Your task to perform on an android device: Open wifi settings Image 0: 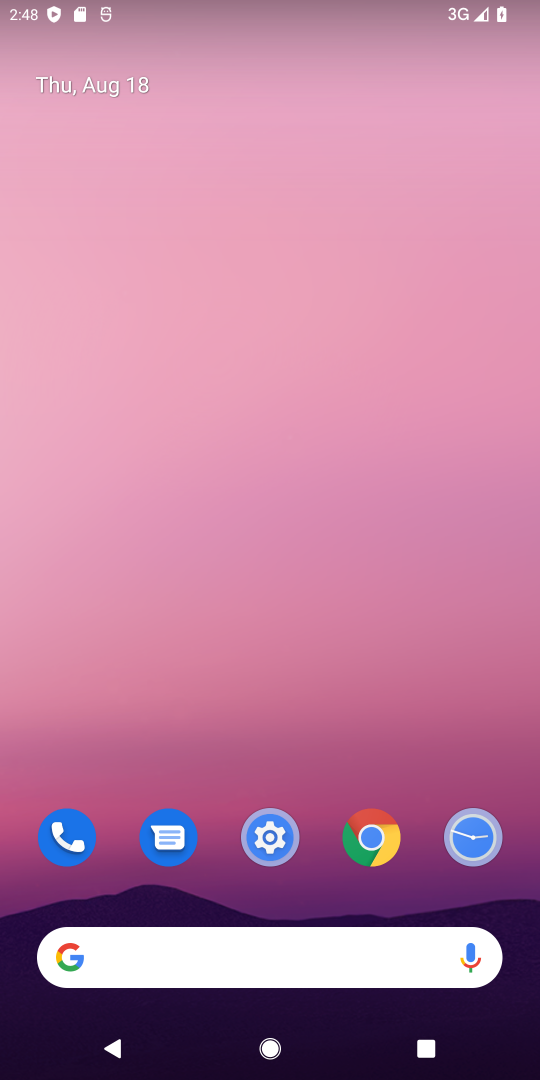
Step 0: drag from (322, 885) to (446, 88)
Your task to perform on an android device: Open wifi settings Image 1: 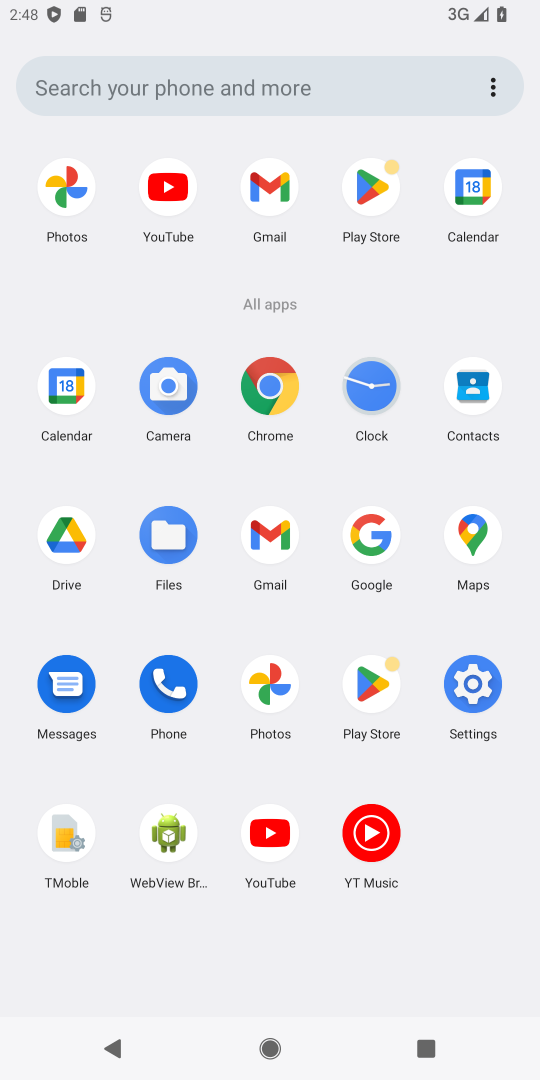
Step 1: click (465, 691)
Your task to perform on an android device: Open wifi settings Image 2: 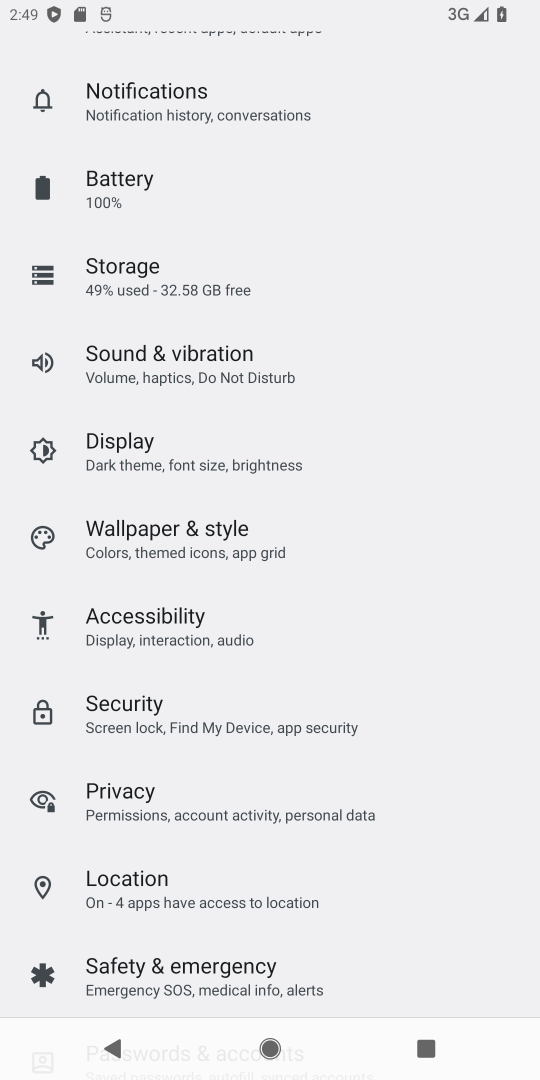
Step 2: drag from (233, 133) to (318, 908)
Your task to perform on an android device: Open wifi settings Image 3: 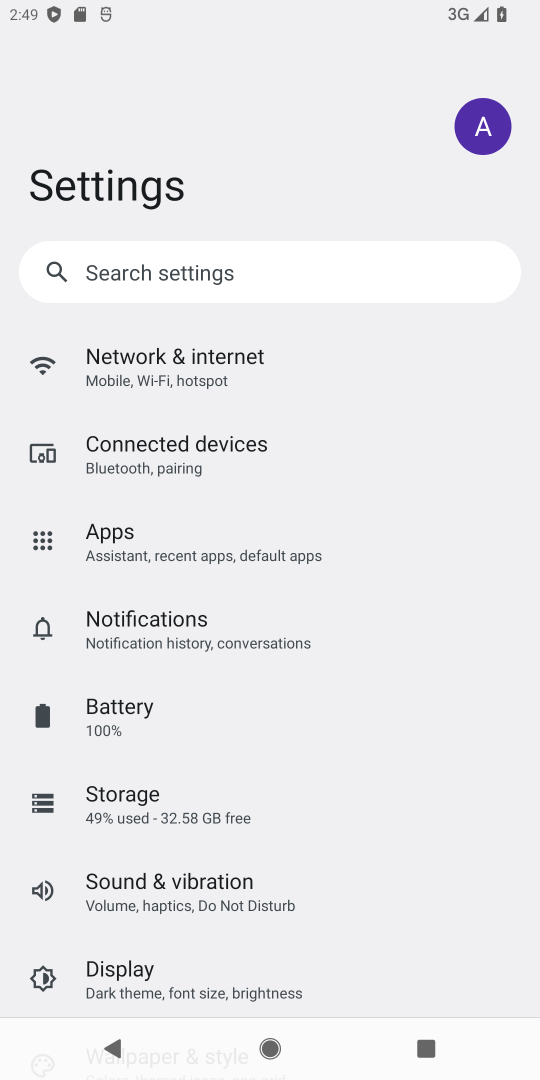
Step 3: click (190, 371)
Your task to perform on an android device: Open wifi settings Image 4: 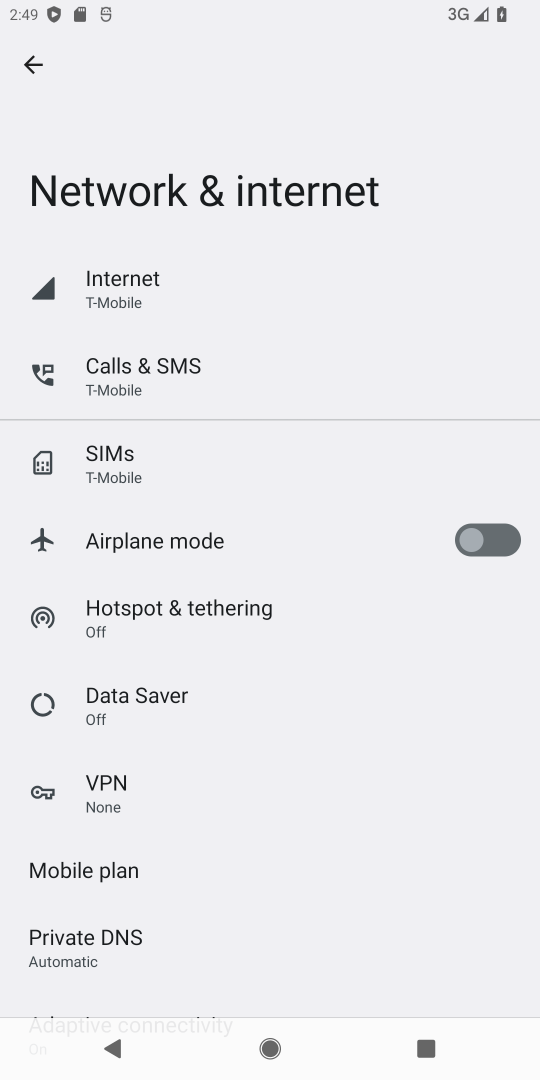
Step 4: click (107, 275)
Your task to perform on an android device: Open wifi settings Image 5: 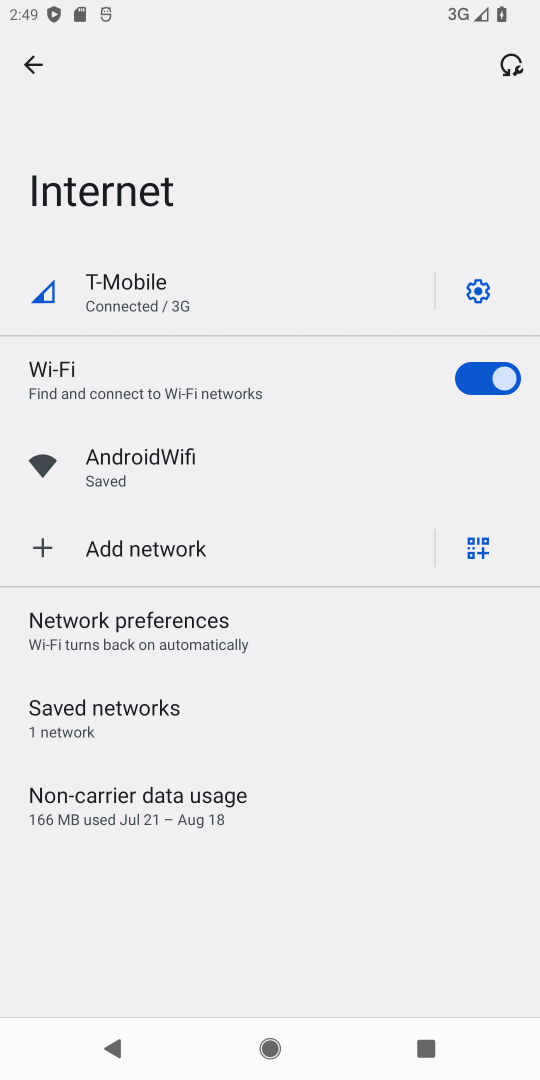
Step 5: click (143, 387)
Your task to perform on an android device: Open wifi settings Image 6: 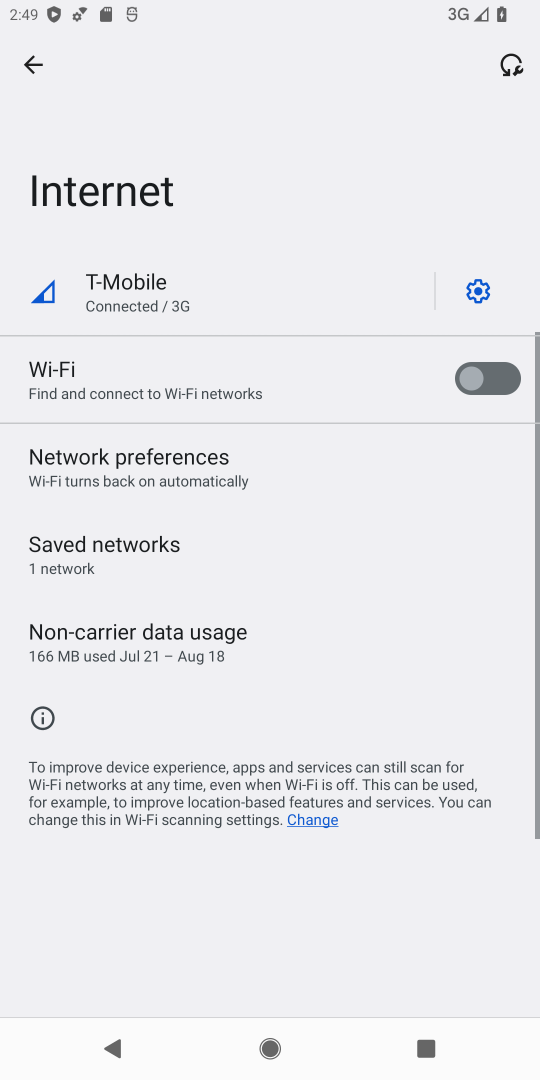
Step 6: click (143, 387)
Your task to perform on an android device: Open wifi settings Image 7: 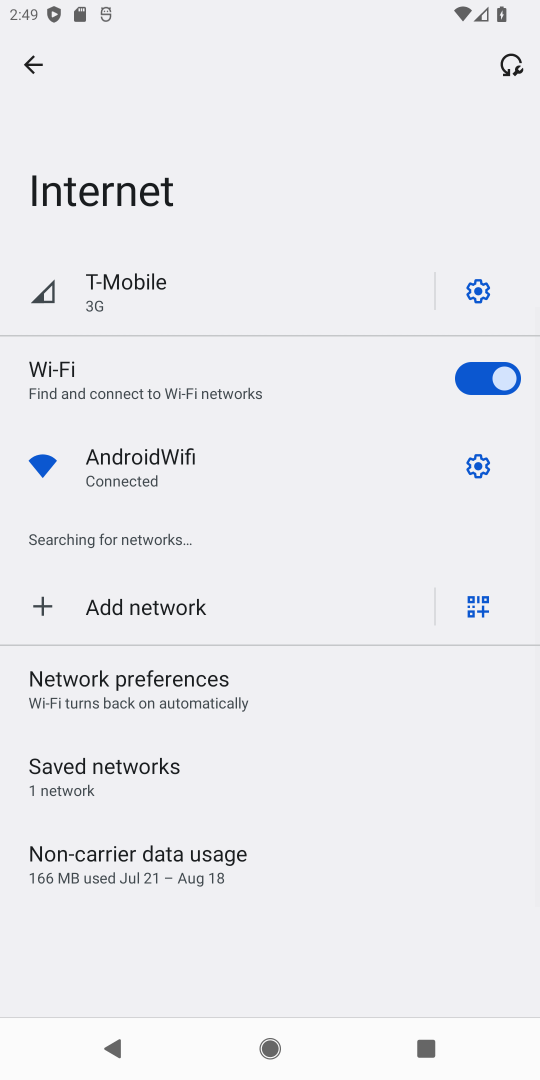
Step 7: click (484, 468)
Your task to perform on an android device: Open wifi settings Image 8: 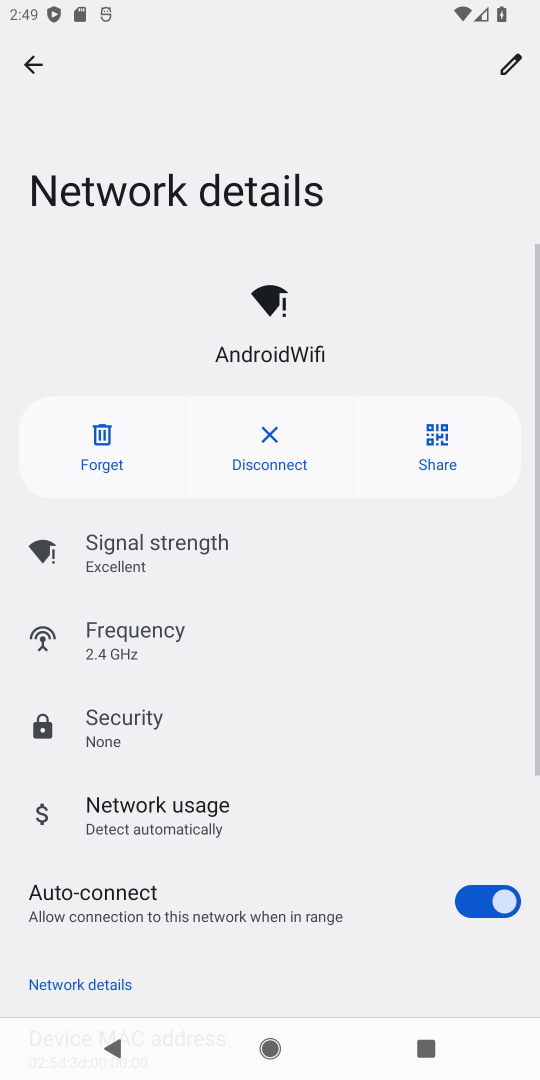
Step 8: task complete